Your task to perform on an android device: Open Google Chrome and click the shortcut for Amazon.com Image 0: 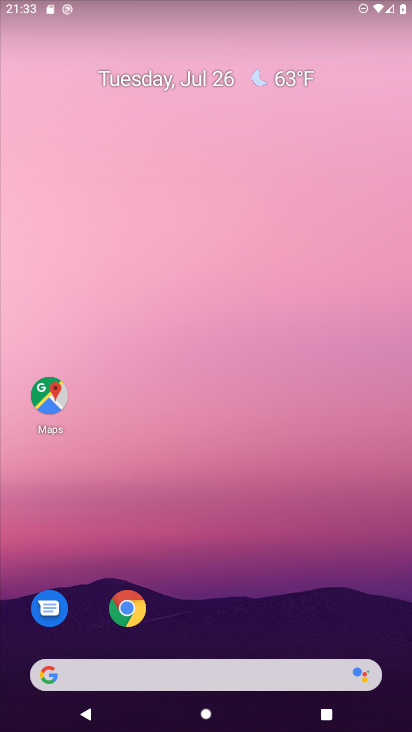
Step 0: click (120, 597)
Your task to perform on an android device: Open Google Chrome and click the shortcut for Amazon.com Image 1: 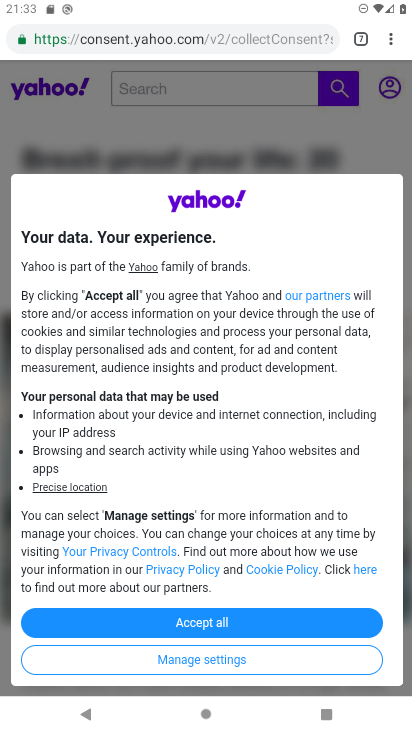
Step 1: click (390, 39)
Your task to perform on an android device: Open Google Chrome and click the shortcut for Amazon.com Image 2: 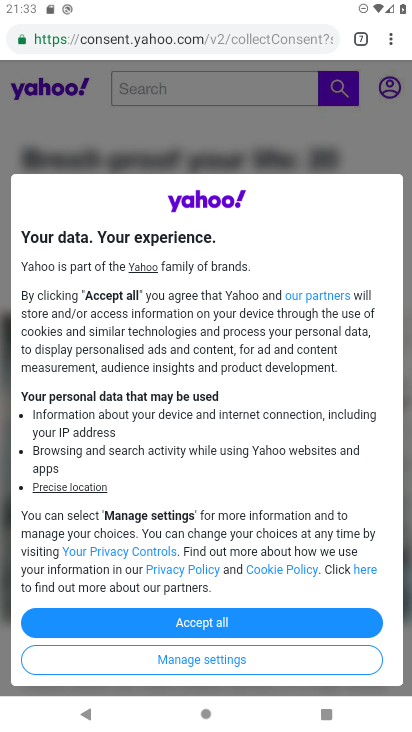
Step 2: click (387, 36)
Your task to perform on an android device: Open Google Chrome and click the shortcut for Amazon.com Image 3: 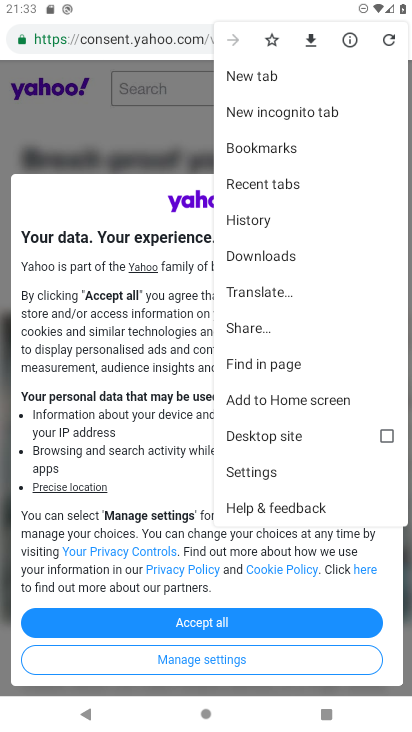
Step 3: click (245, 75)
Your task to perform on an android device: Open Google Chrome and click the shortcut for Amazon.com Image 4: 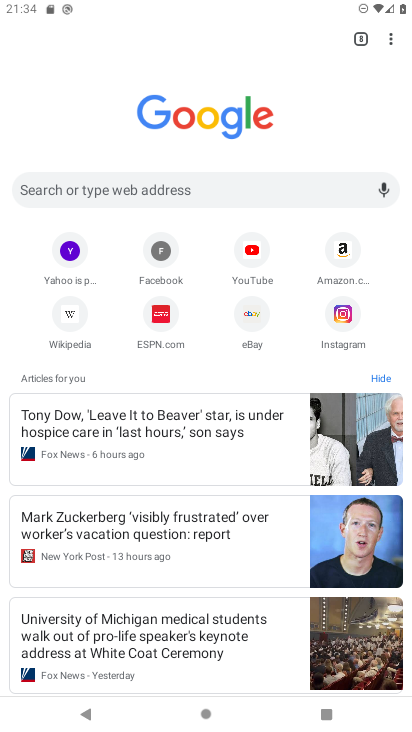
Step 4: click (334, 255)
Your task to perform on an android device: Open Google Chrome and click the shortcut for Amazon.com Image 5: 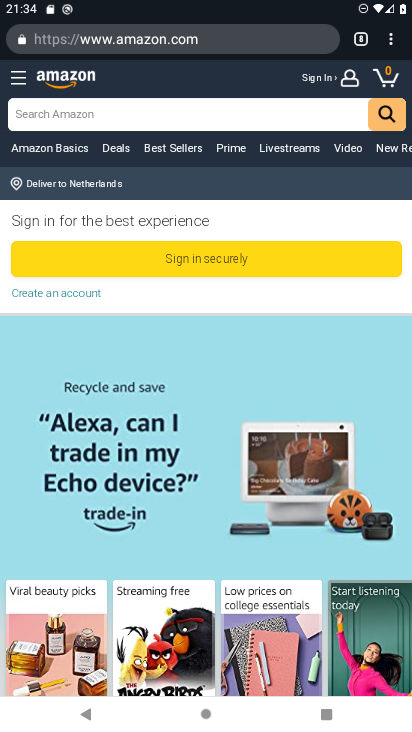
Step 5: task complete